Your task to perform on an android device: change the clock display to analog Image 0: 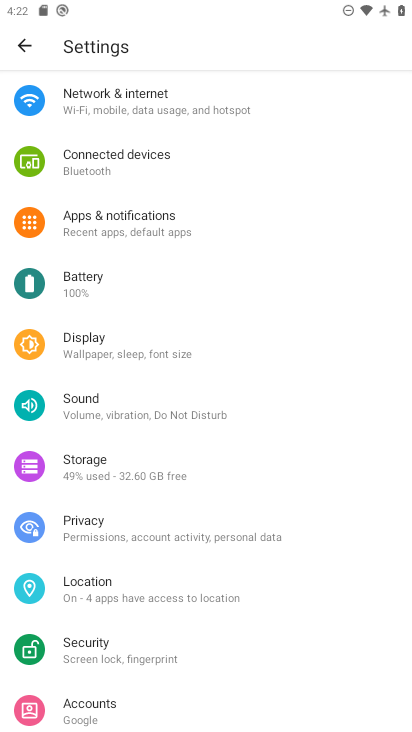
Step 0: press home button
Your task to perform on an android device: change the clock display to analog Image 1: 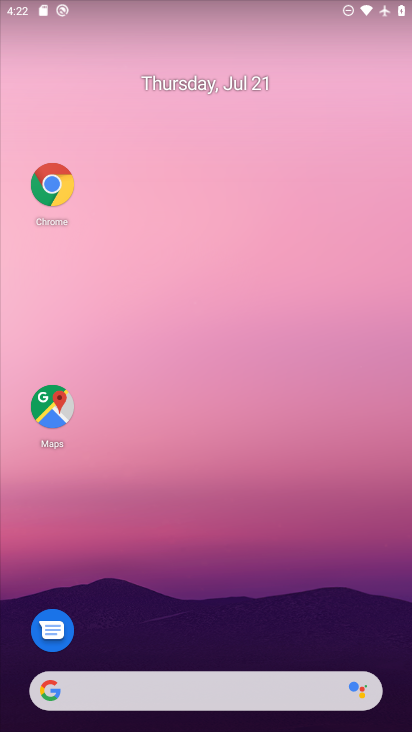
Step 1: drag from (209, 668) to (364, 114)
Your task to perform on an android device: change the clock display to analog Image 2: 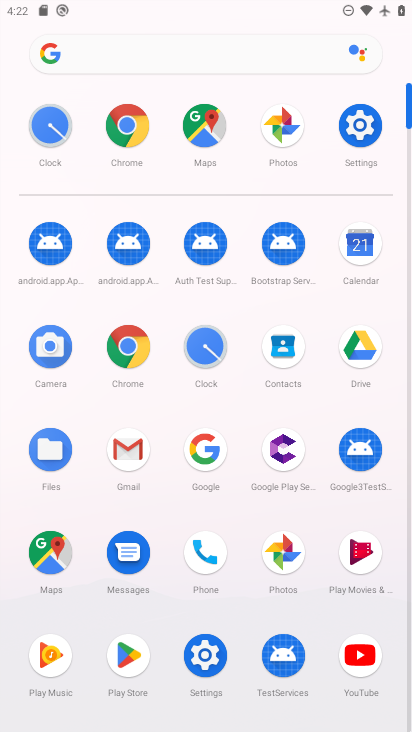
Step 2: click (206, 355)
Your task to perform on an android device: change the clock display to analog Image 3: 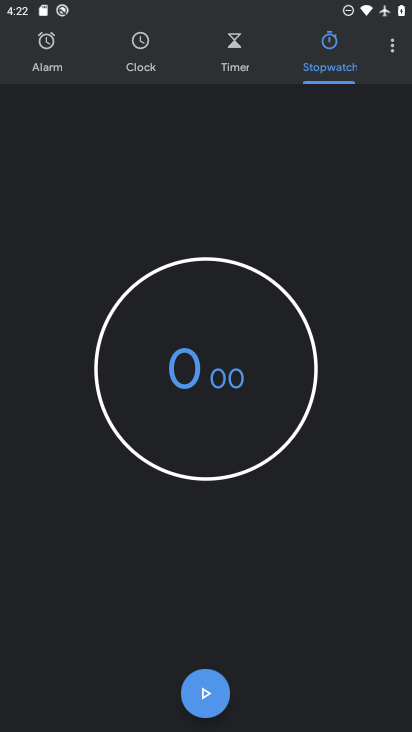
Step 3: click (387, 46)
Your task to perform on an android device: change the clock display to analog Image 4: 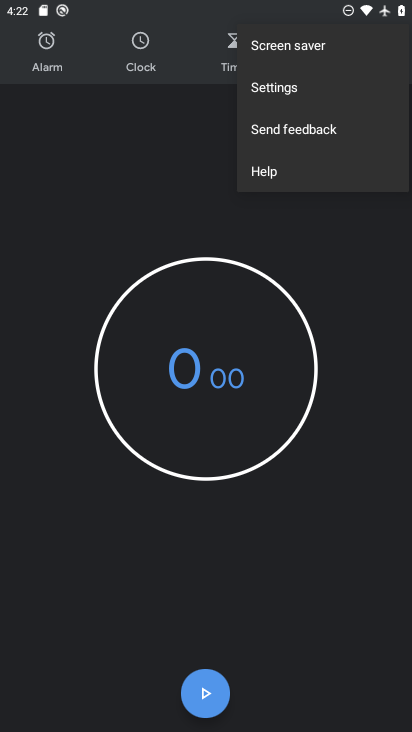
Step 4: click (289, 93)
Your task to perform on an android device: change the clock display to analog Image 5: 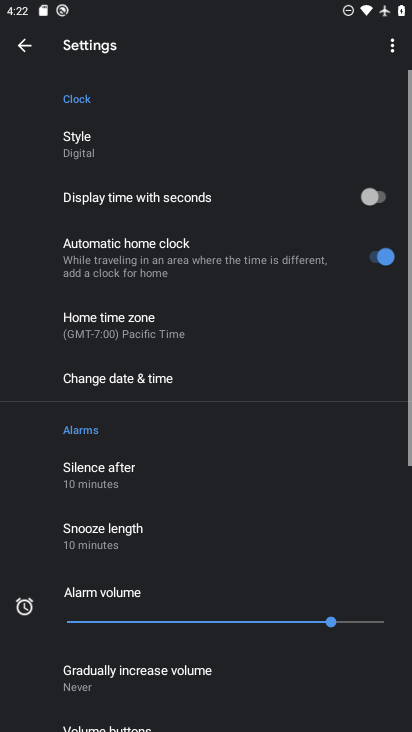
Step 5: click (66, 143)
Your task to perform on an android device: change the clock display to analog Image 6: 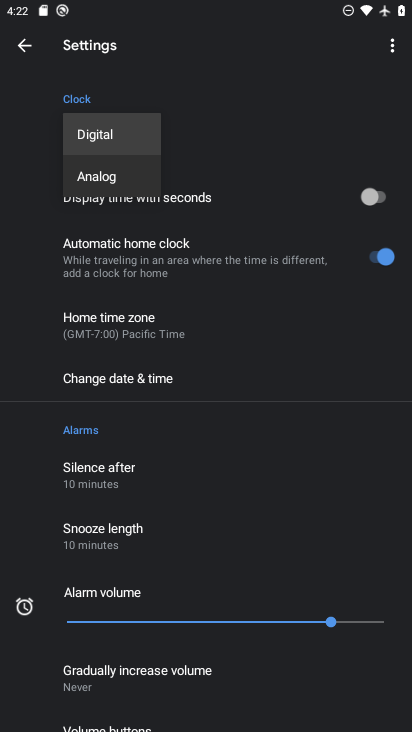
Step 6: click (113, 176)
Your task to perform on an android device: change the clock display to analog Image 7: 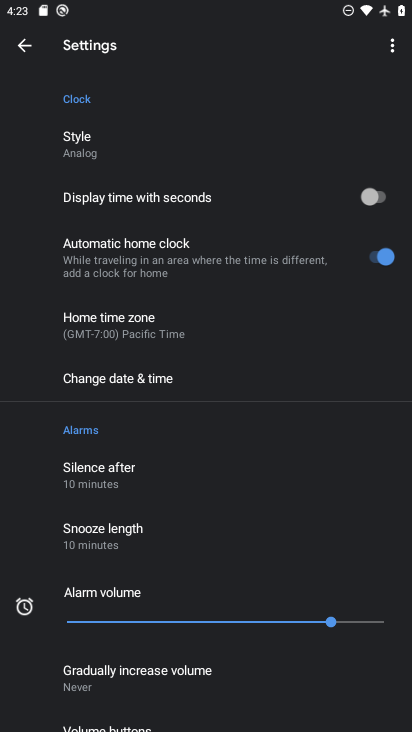
Step 7: task complete